Your task to perform on an android device: Go to calendar. Show me events next week Image 0: 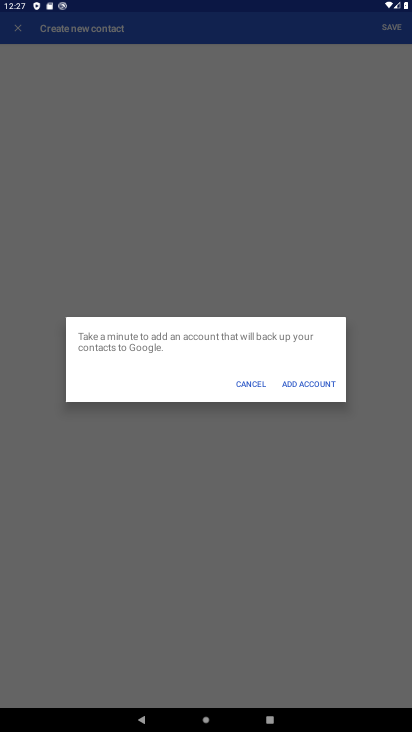
Step 0: press home button
Your task to perform on an android device: Go to calendar. Show me events next week Image 1: 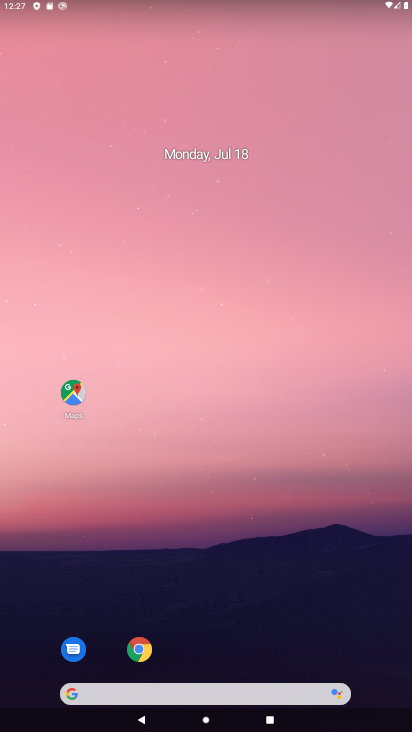
Step 1: drag from (102, 453) to (282, 74)
Your task to perform on an android device: Go to calendar. Show me events next week Image 2: 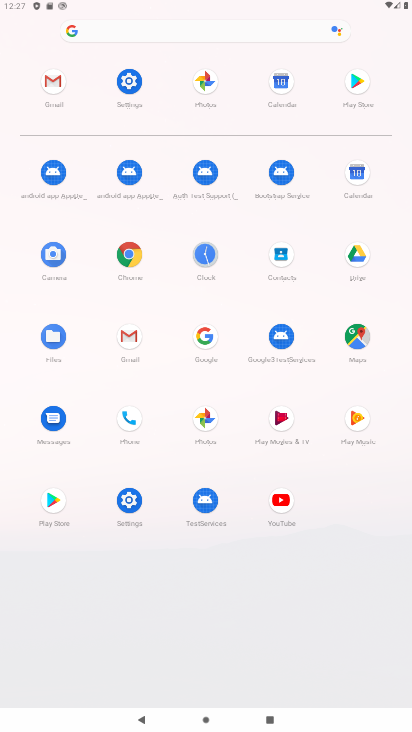
Step 2: click (353, 174)
Your task to perform on an android device: Go to calendar. Show me events next week Image 3: 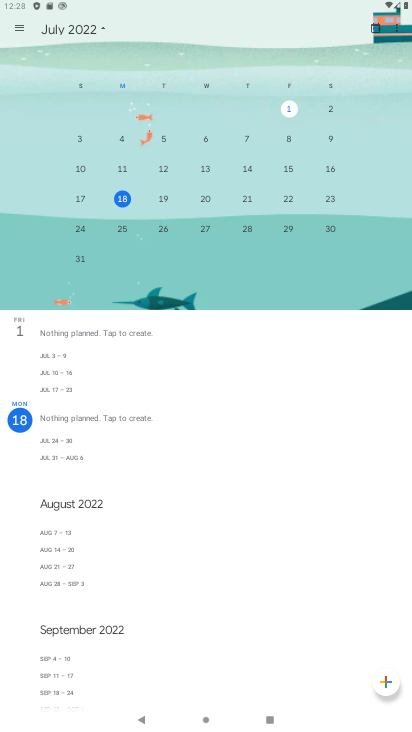
Step 3: task complete